Your task to perform on an android device: toggle location history Image 0: 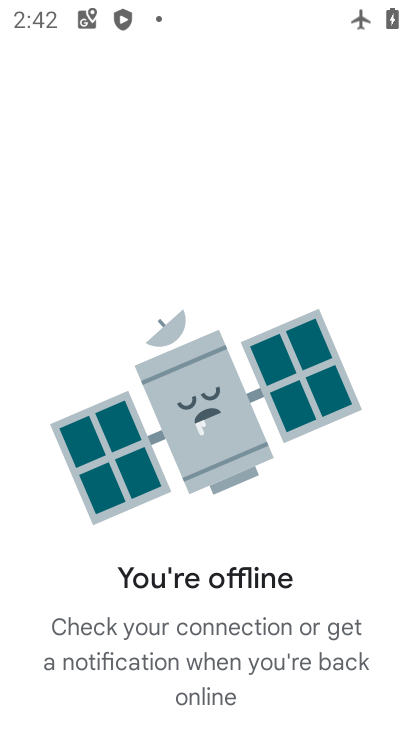
Step 0: press home button
Your task to perform on an android device: toggle location history Image 1: 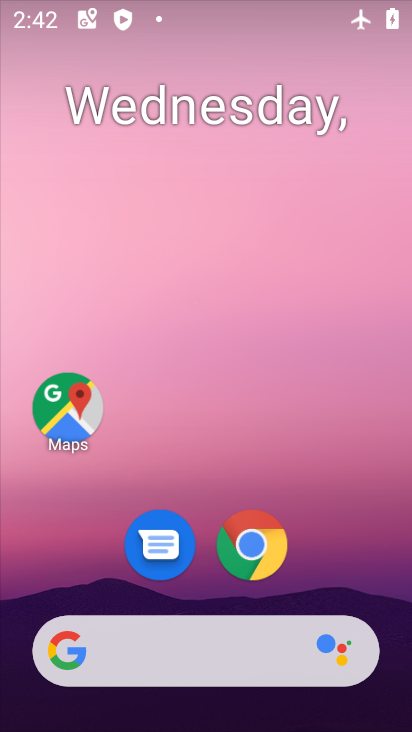
Step 1: drag from (322, 531) to (270, 161)
Your task to perform on an android device: toggle location history Image 2: 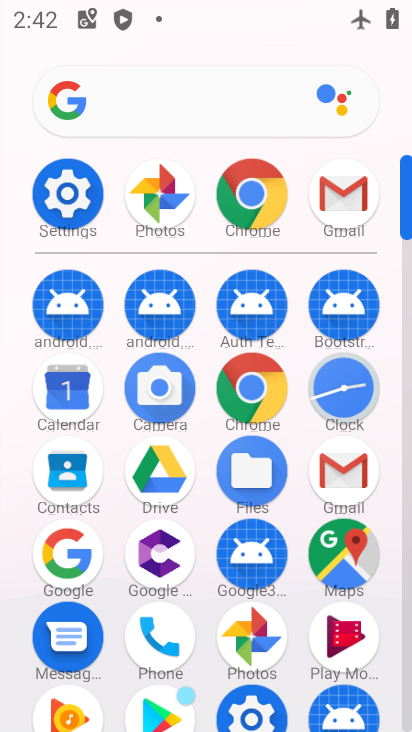
Step 2: click (74, 189)
Your task to perform on an android device: toggle location history Image 3: 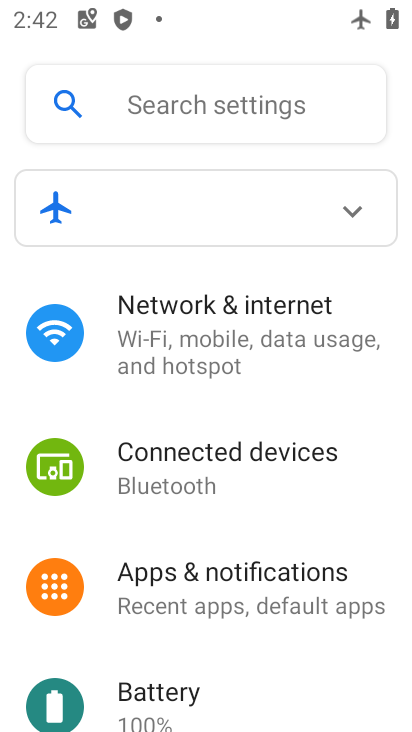
Step 3: drag from (210, 626) to (239, 316)
Your task to perform on an android device: toggle location history Image 4: 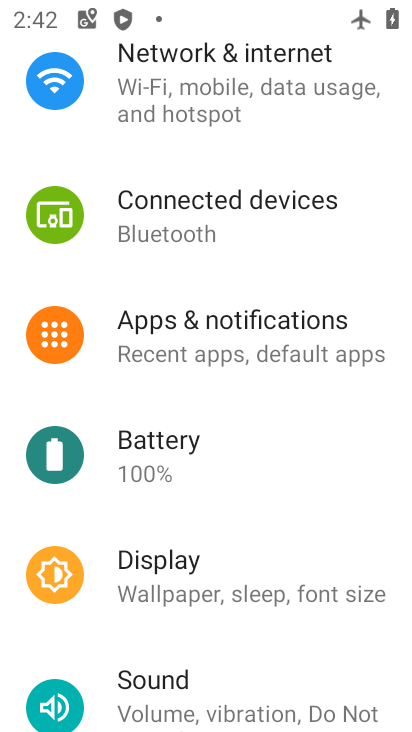
Step 4: drag from (212, 560) to (237, 385)
Your task to perform on an android device: toggle location history Image 5: 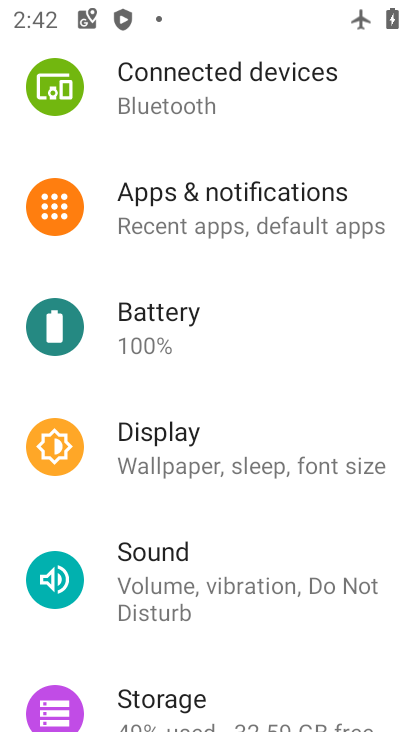
Step 5: drag from (269, 280) to (269, 583)
Your task to perform on an android device: toggle location history Image 6: 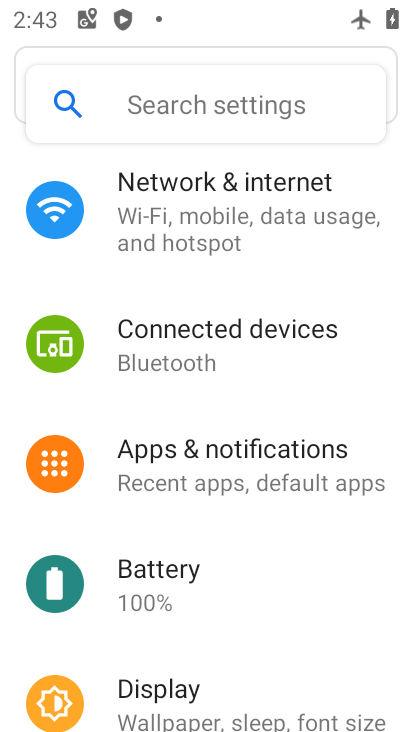
Step 6: drag from (270, 553) to (269, 158)
Your task to perform on an android device: toggle location history Image 7: 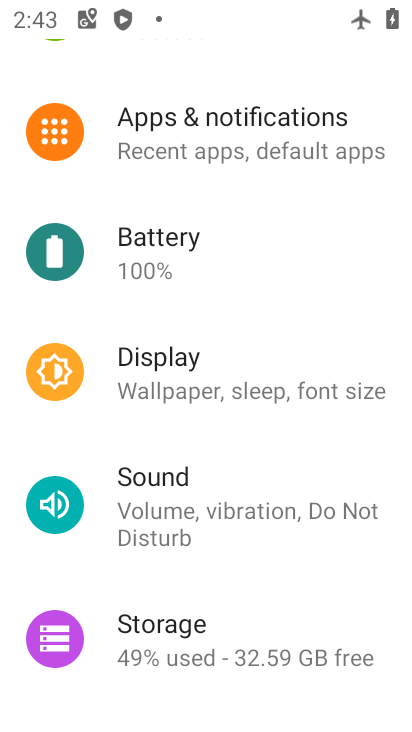
Step 7: drag from (234, 532) to (259, 188)
Your task to perform on an android device: toggle location history Image 8: 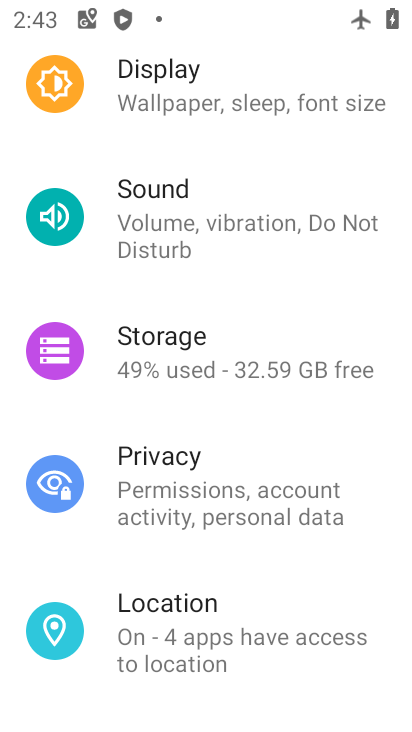
Step 8: click (159, 622)
Your task to perform on an android device: toggle location history Image 9: 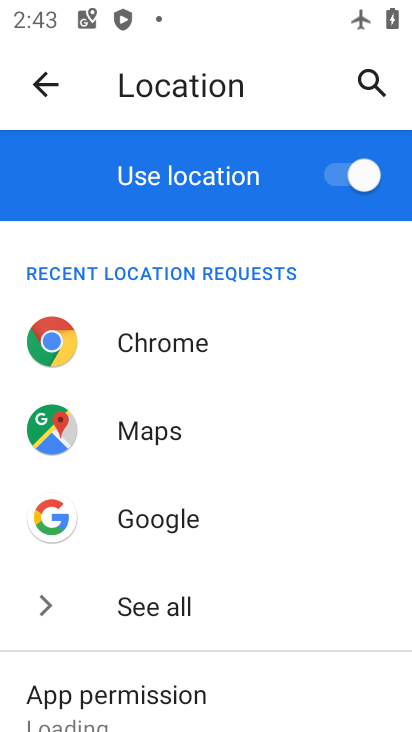
Step 9: drag from (286, 514) to (268, 199)
Your task to perform on an android device: toggle location history Image 10: 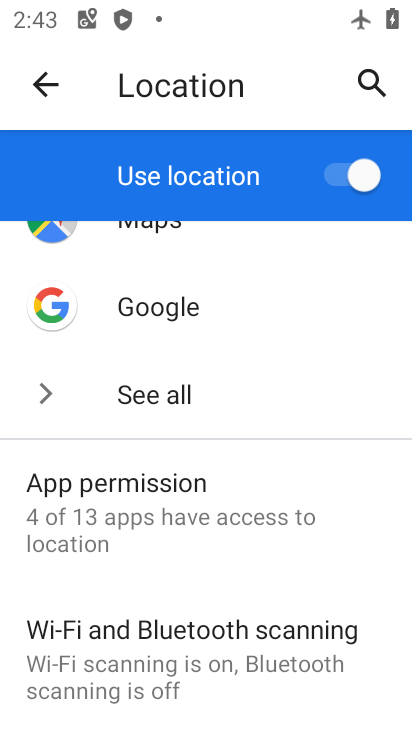
Step 10: drag from (197, 610) to (243, 266)
Your task to perform on an android device: toggle location history Image 11: 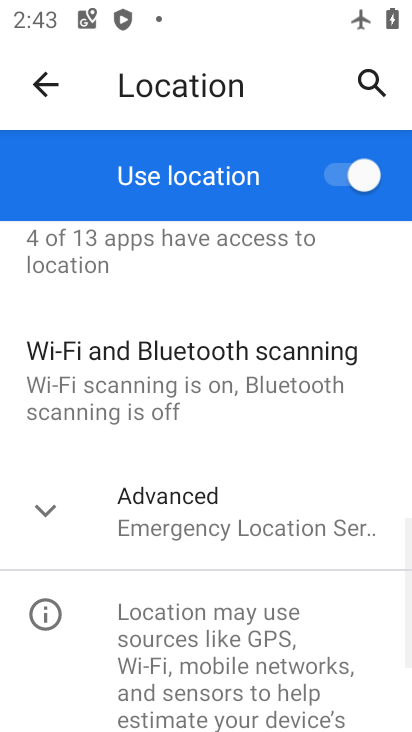
Step 11: click (214, 518)
Your task to perform on an android device: toggle location history Image 12: 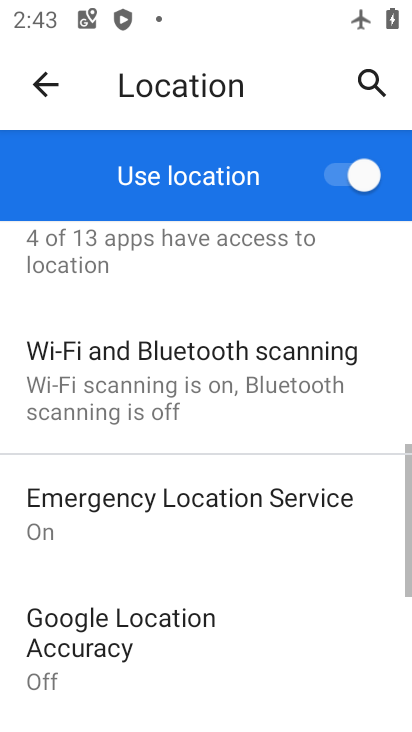
Step 12: drag from (256, 644) to (266, 298)
Your task to perform on an android device: toggle location history Image 13: 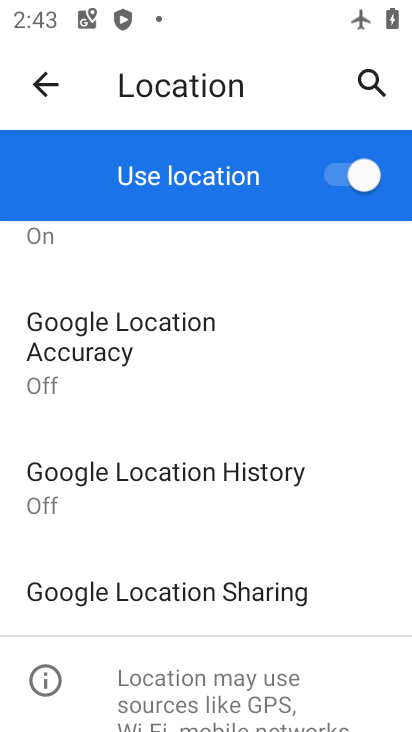
Step 13: click (213, 480)
Your task to perform on an android device: toggle location history Image 14: 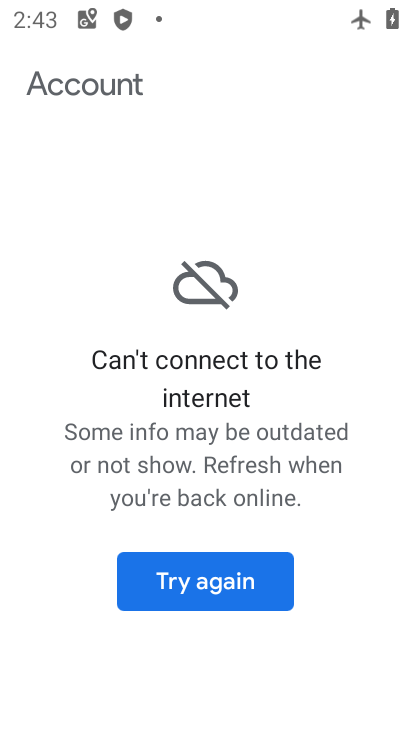
Step 14: task complete